Your task to perform on an android device: Do I have any events tomorrow? Image 0: 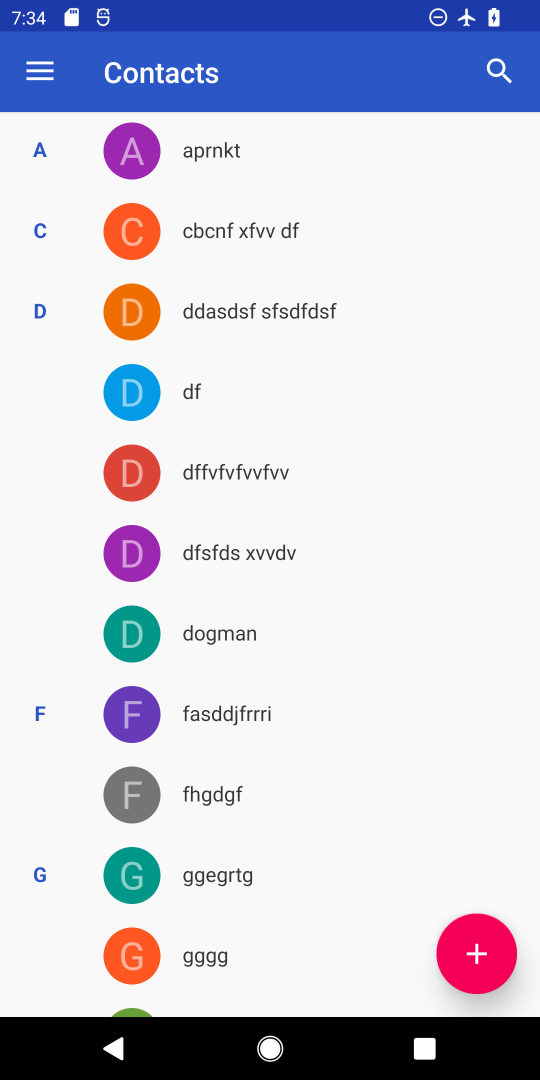
Step 0: press home button
Your task to perform on an android device: Do I have any events tomorrow? Image 1: 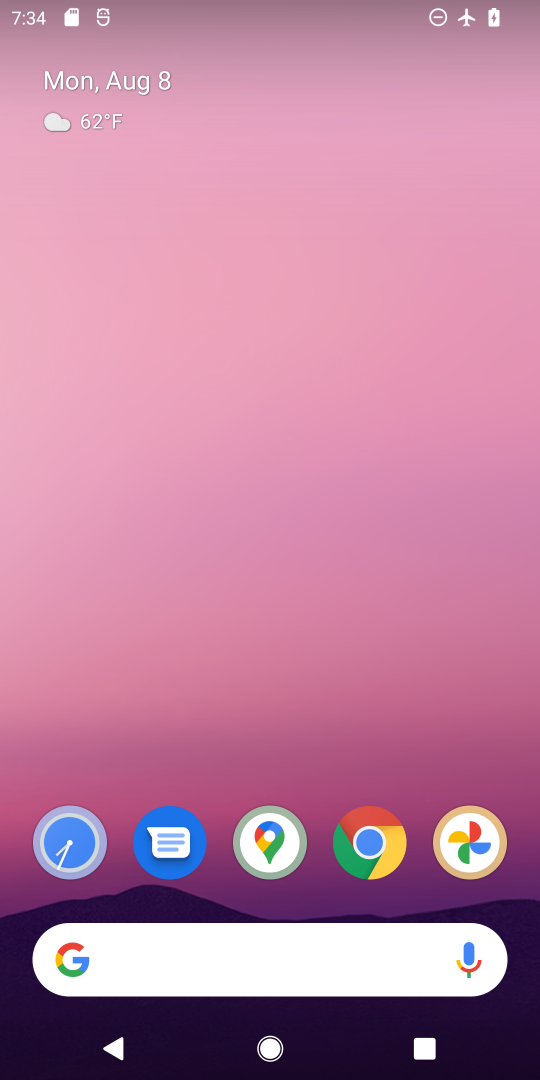
Step 1: drag from (283, 887) to (200, 29)
Your task to perform on an android device: Do I have any events tomorrow? Image 2: 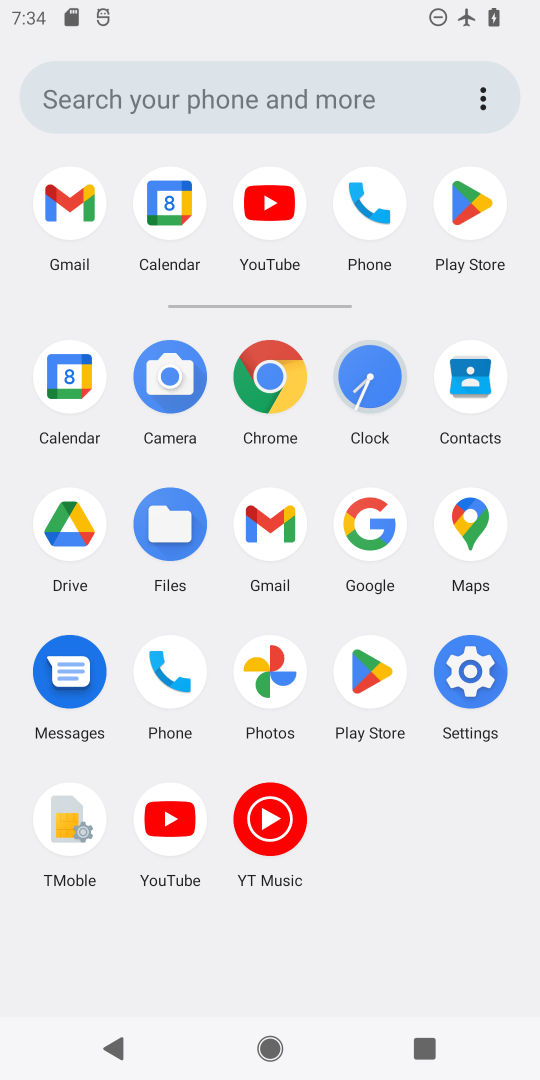
Step 2: click (65, 376)
Your task to perform on an android device: Do I have any events tomorrow? Image 3: 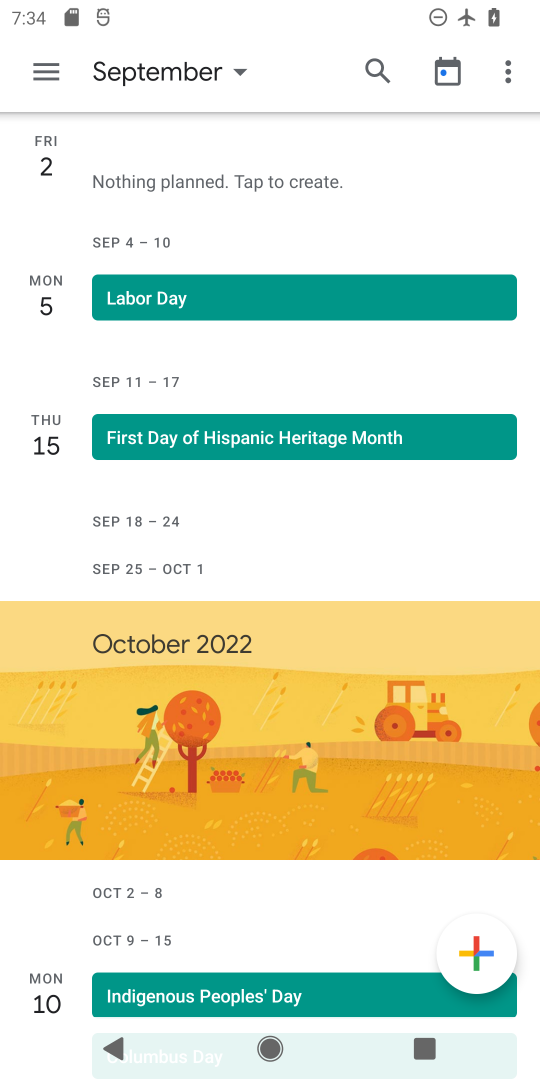
Step 3: drag from (437, 75) to (489, 75)
Your task to perform on an android device: Do I have any events tomorrow? Image 4: 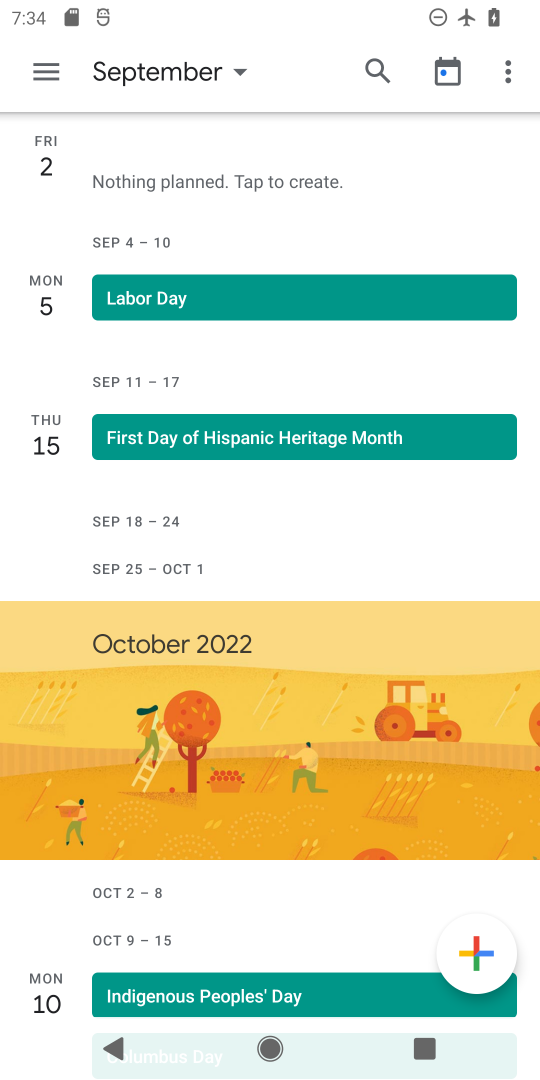
Step 4: click (443, 64)
Your task to perform on an android device: Do I have any events tomorrow? Image 5: 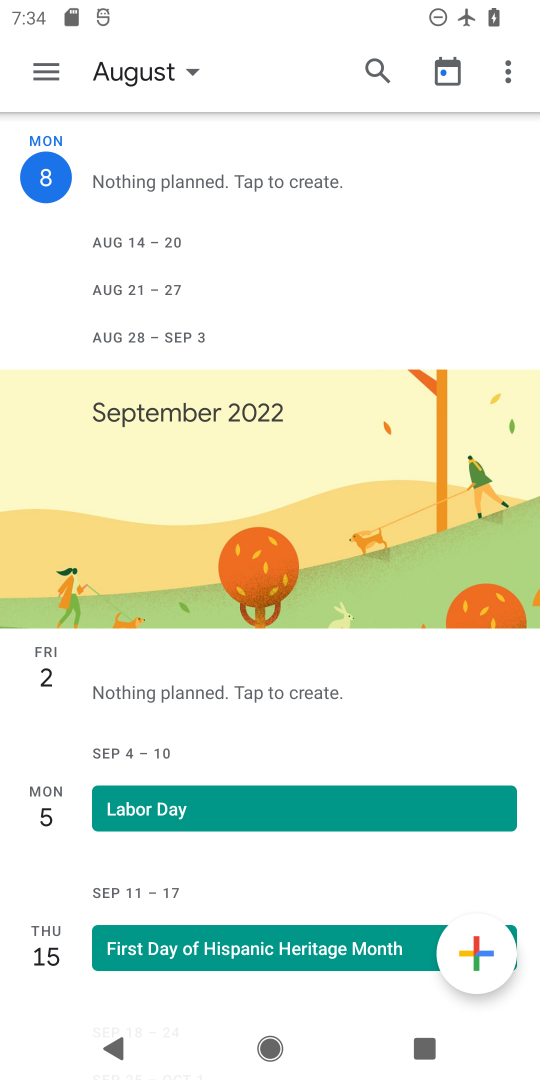
Step 5: click (36, 84)
Your task to perform on an android device: Do I have any events tomorrow? Image 6: 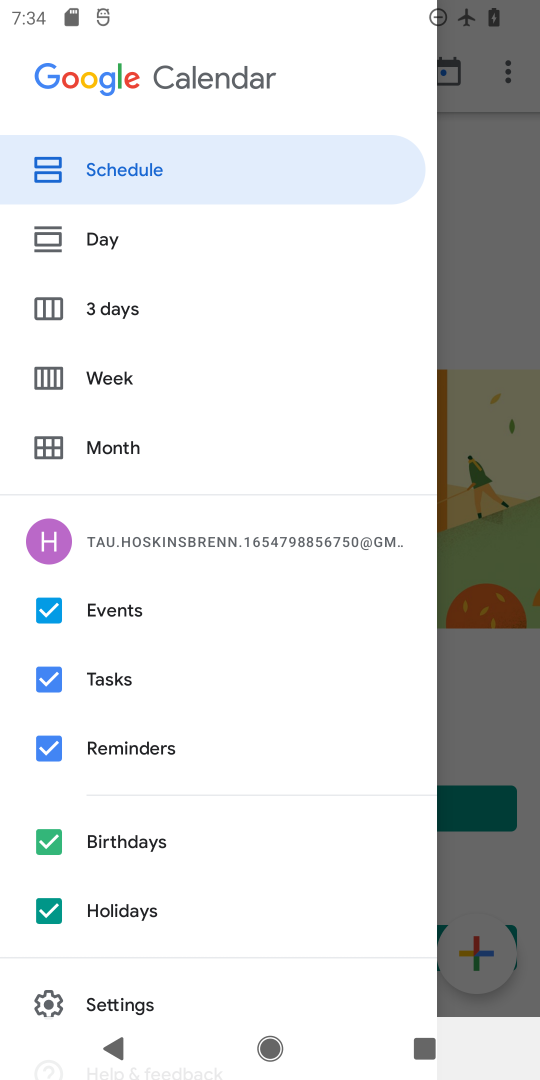
Step 6: click (99, 232)
Your task to perform on an android device: Do I have any events tomorrow? Image 7: 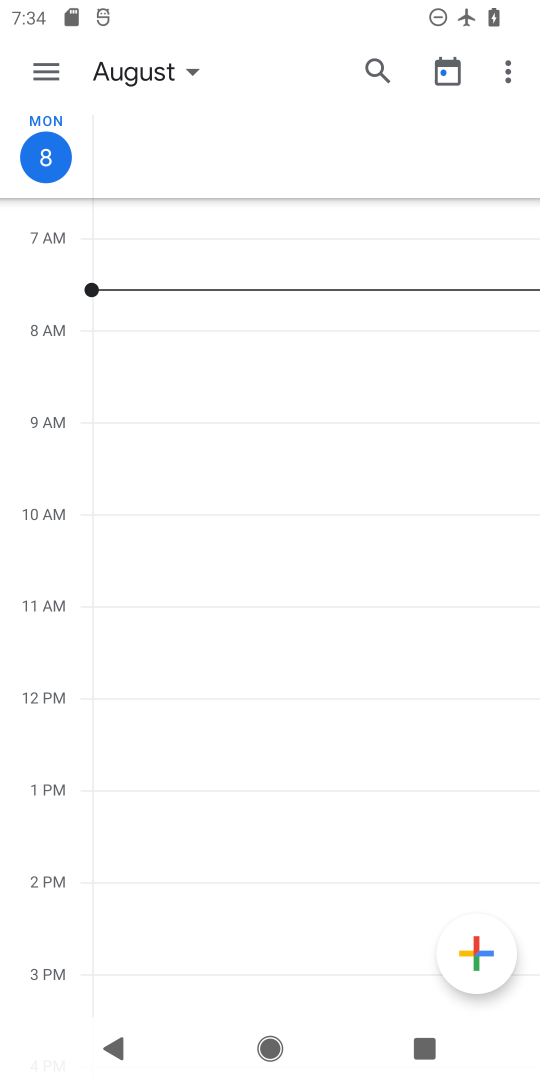
Step 7: task complete